Your task to perform on an android device: Open calendar and show me the second week of next month Image 0: 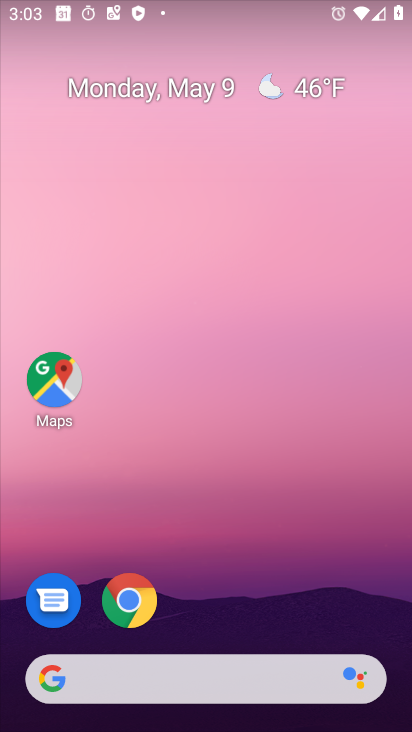
Step 0: drag from (223, 594) to (291, 2)
Your task to perform on an android device: Open calendar and show me the second week of next month Image 1: 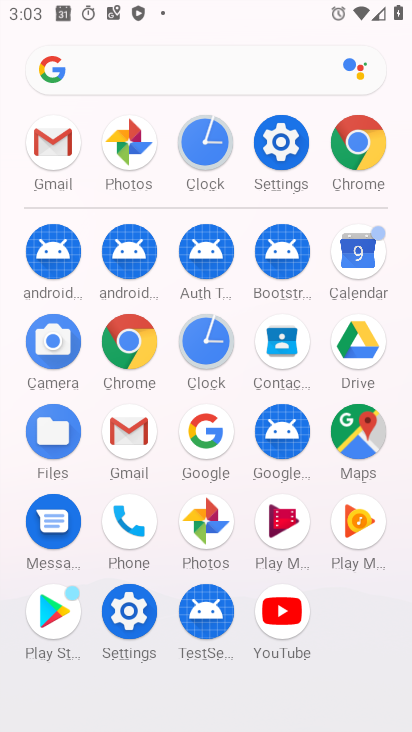
Step 1: click (346, 256)
Your task to perform on an android device: Open calendar and show me the second week of next month Image 2: 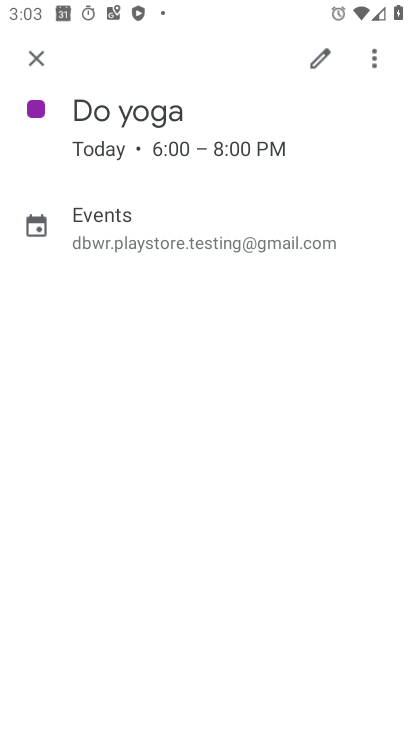
Step 2: click (43, 48)
Your task to perform on an android device: Open calendar and show me the second week of next month Image 3: 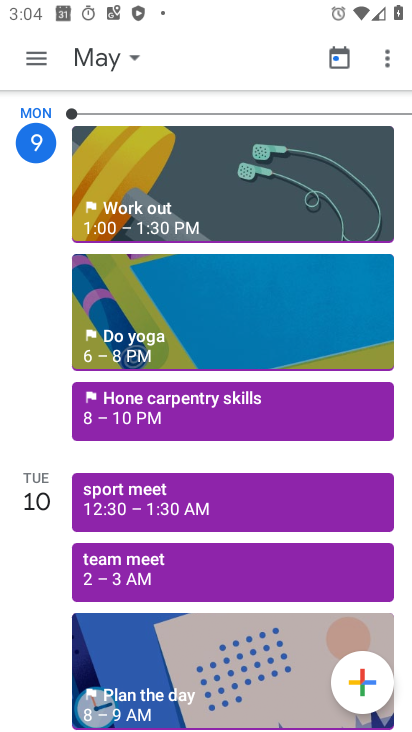
Step 3: click (131, 58)
Your task to perform on an android device: Open calendar and show me the second week of next month Image 4: 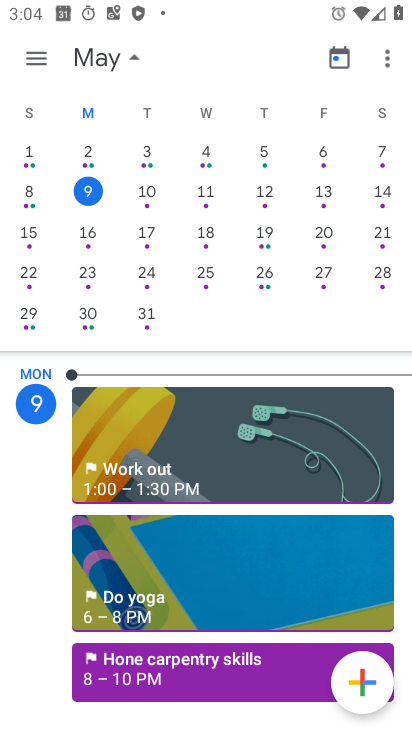
Step 4: drag from (386, 212) to (21, 216)
Your task to perform on an android device: Open calendar and show me the second week of next month Image 5: 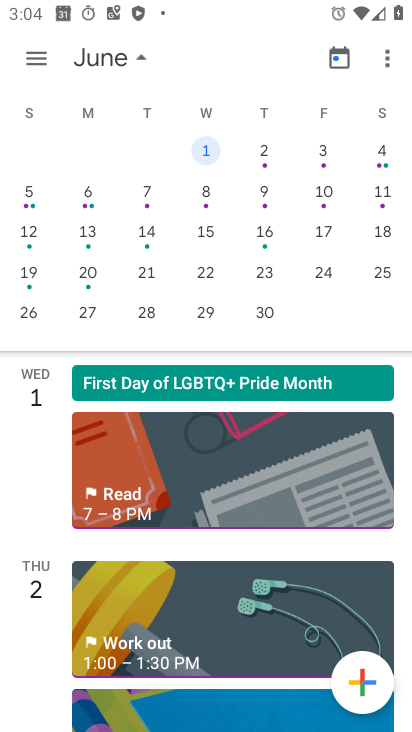
Step 5: click (91, 183)
Your task to perform on an android device: Open calendar and show me the second week of next month Image 6: 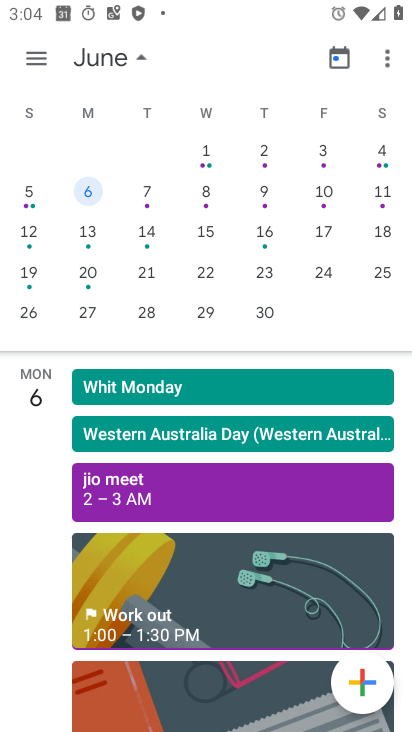
Step 6: task complete